Your task to perform on an android device: turn off data saver in the chrome app Image 0: 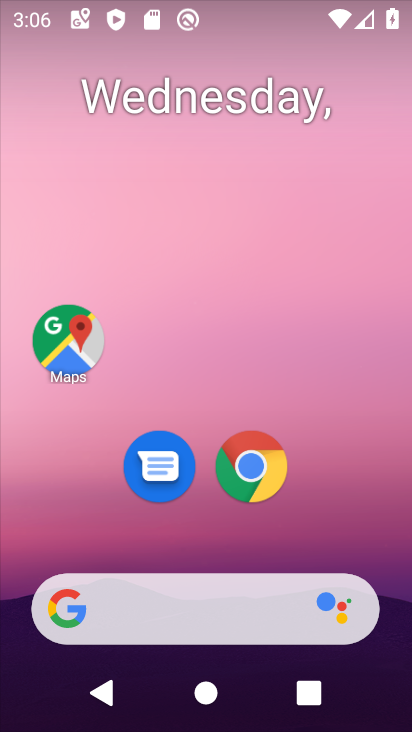
Step 0: drag from (166, 397) to (186, 0)
Your task to perform on an android device: turn off data saver in the chrome app Image 1: 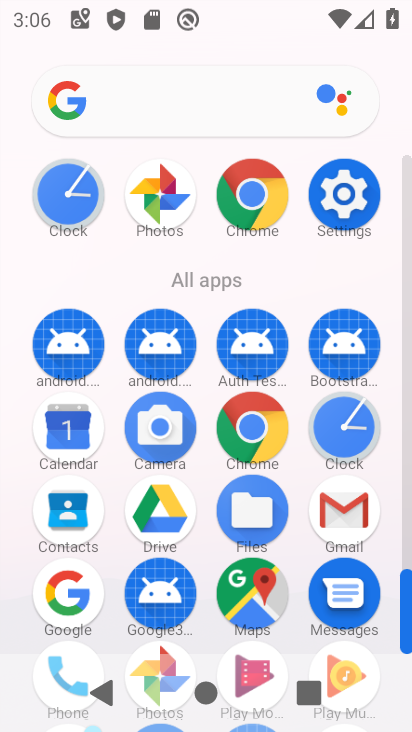
Step 1: click (260, 201)
Your task to perform on an android device: turn off data saver in the chrome app Image 2: 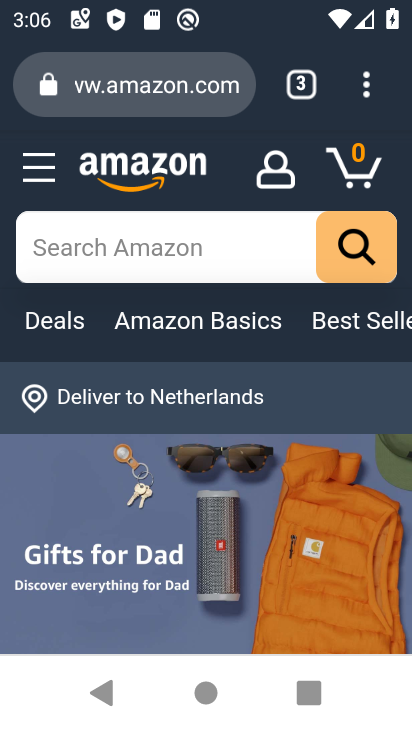
Step 2: click (371, 77)
Your task to perform on an android device: turn off data saver in the chrome app Image 3: 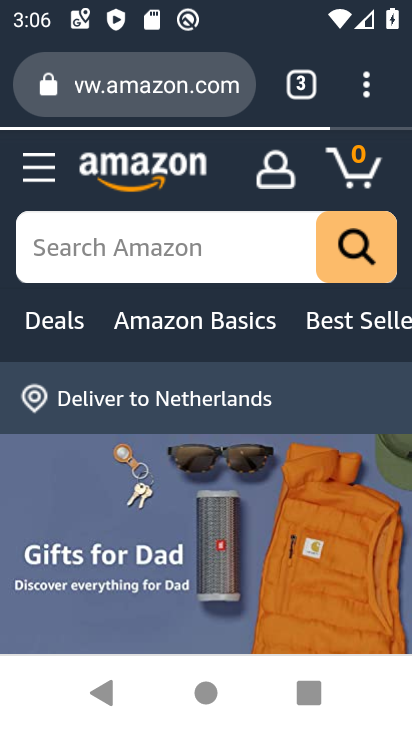
Step 3: drag from (363, 91) to (165, 538)
Your task to perform on an android device: turn off data saver in the chrome app Image 4: 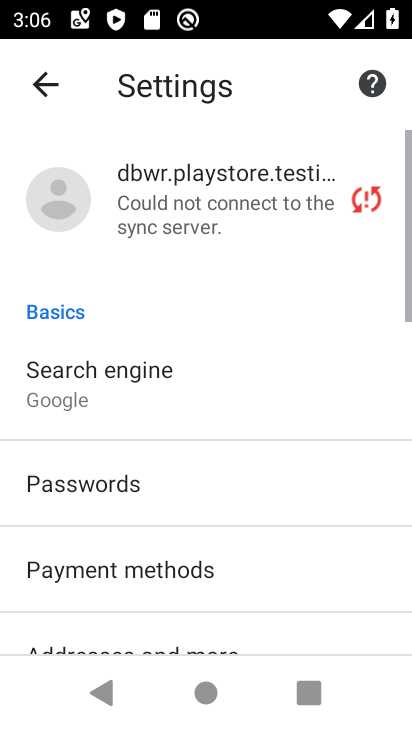
Step 4: drag from (186, 539) to (194, 9)
Your task to perform on an android device: turn off data saver in the chrome app Image 5: 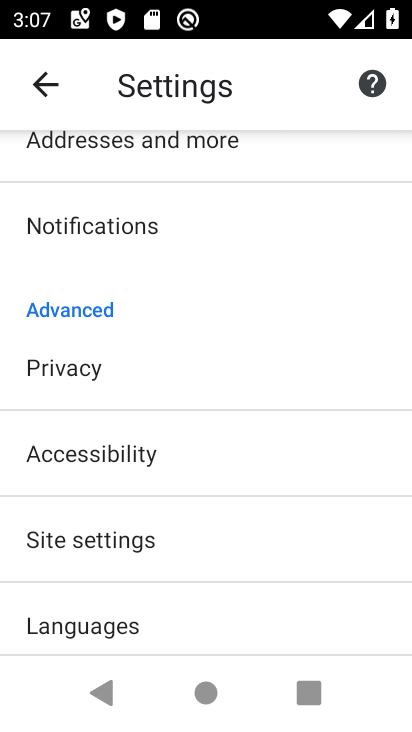
Step 5: drag from (128, 533) to (196, 18)
Your task to perform on an android device: turn off data saver in the chrome app Image 6: 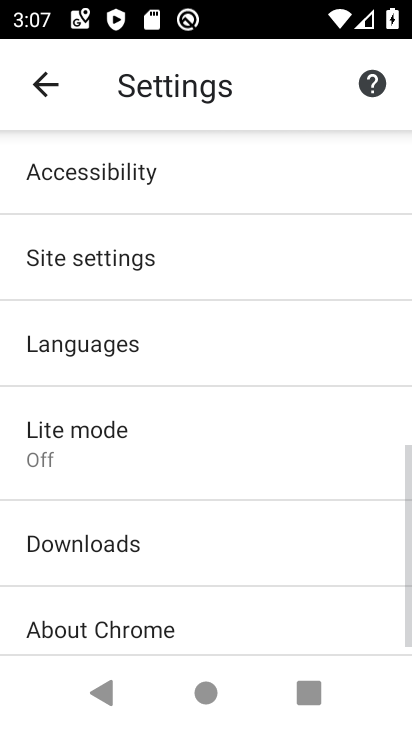
Step 6: click (125, 453)
Your task to perform on an android device: turn off data saver in the chrome app Image 7: 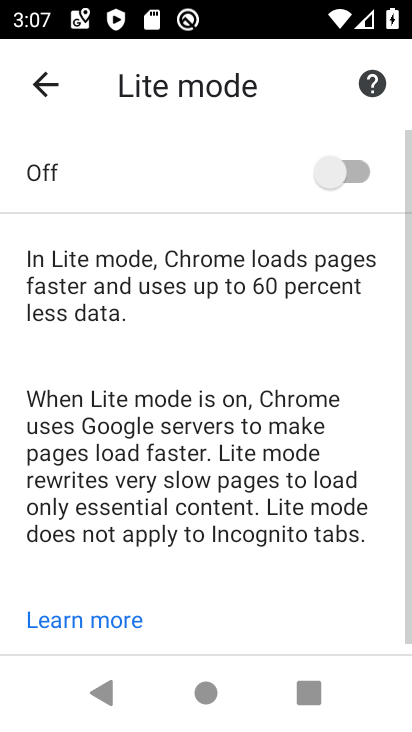
Step 7: task complete